Your task to perform on an android device: snooze an email in the gmail app Image 0: 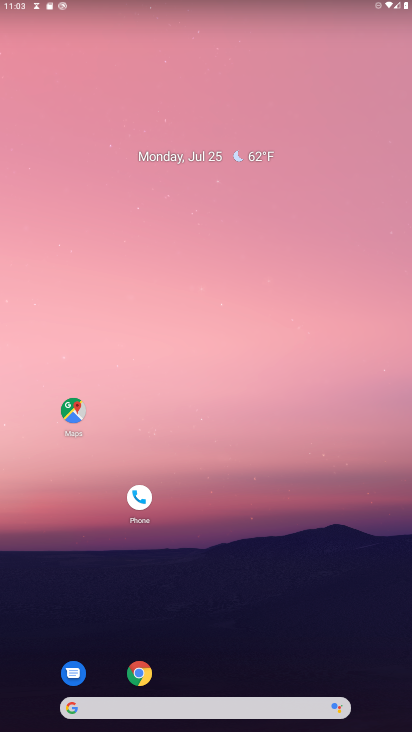
Step 0: press home button
Your task to perform on an android device: snooze an email in the gmail app Image 1: 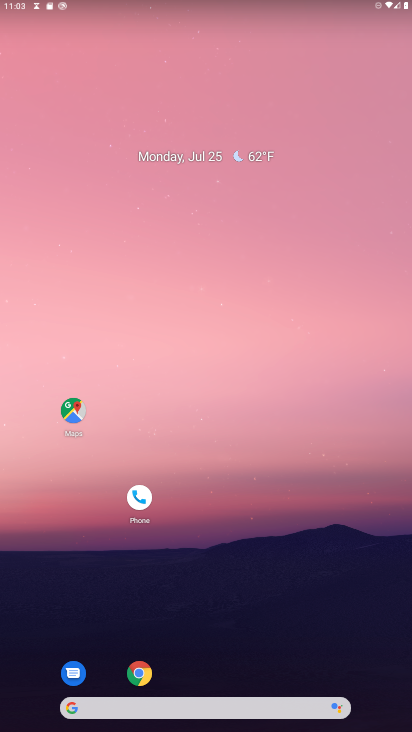
Step 1: drag from (243, 587) to (228, 0)
Your task to perform on an android device: snooze an email in the gmail app Image 2: 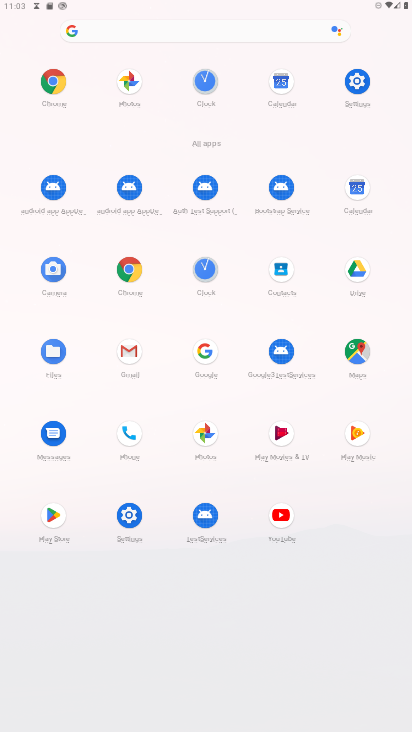
Step 2: click (113, 358)
Your task to perform on an android device: snooze an email in the gmail app Image 3: 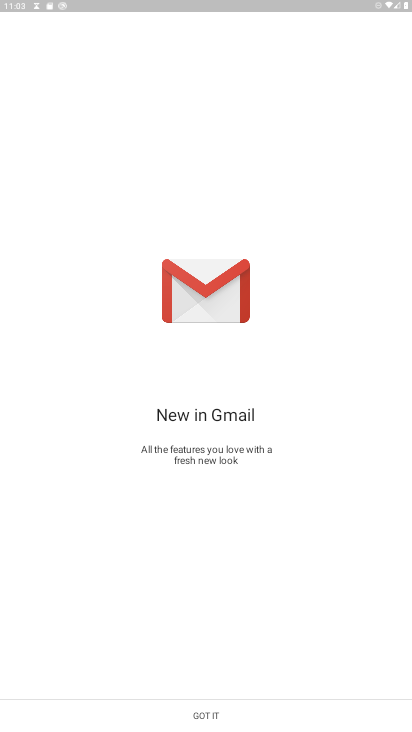
Step 3: click (206, 709)
Your task to perform on an android device: snooze an email in the gmail app Image 4: 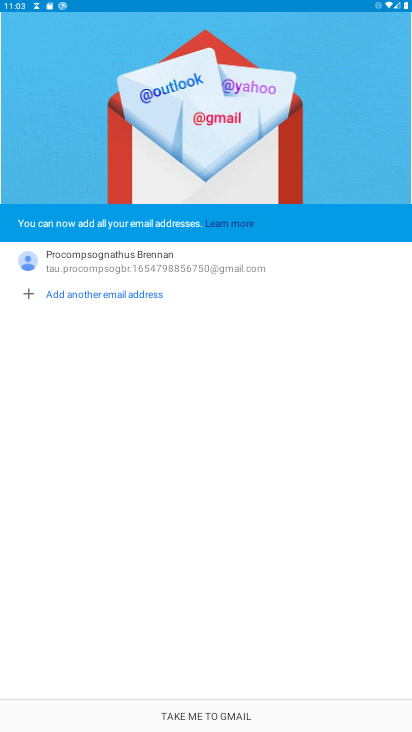
Step 4: click (201, 720)
Your task to perform on an android device: snooze an email in the gmail app Image 5: 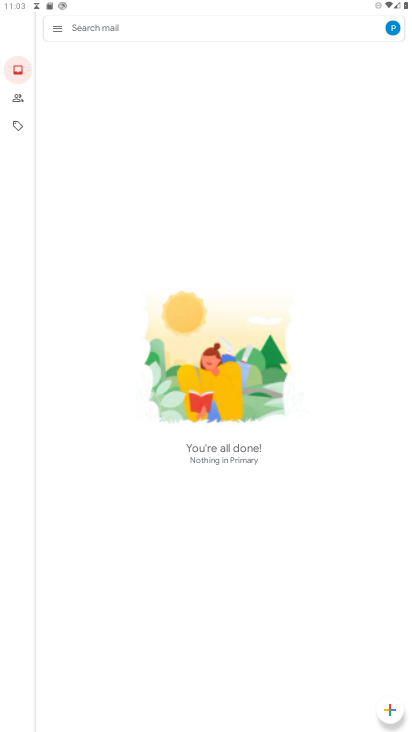
Step 5: click (57, 29)
Your task to perform on an android device: snooze an email in the gmail app Image 6: 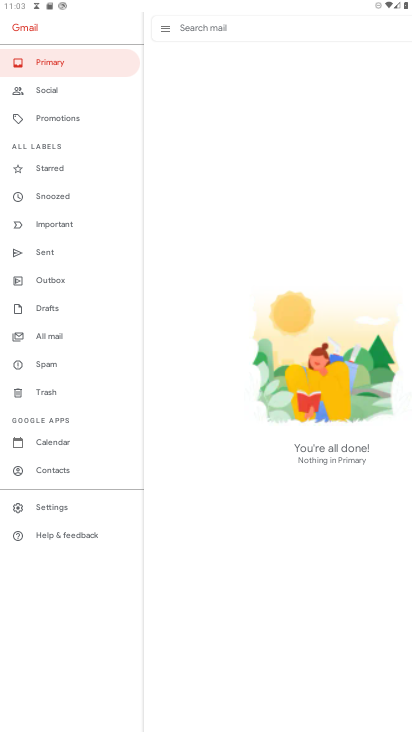
Step 6: click (53, 332)
Your task to perform on an android device: snooze an email in the gmail app Image 7: 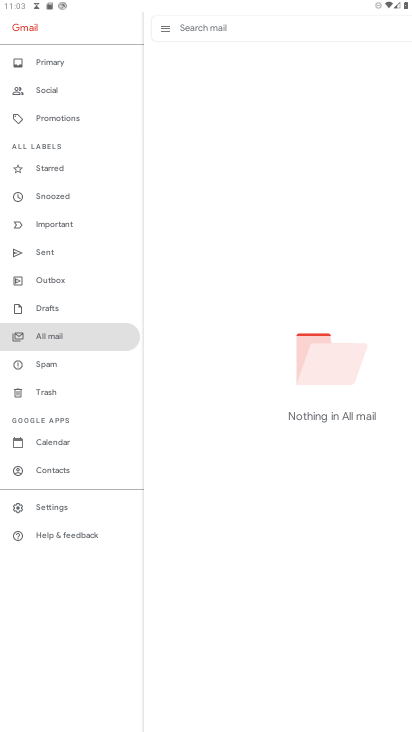
Step 7: task complete